Your task to perform on an android device: What is the news today? Image 0: 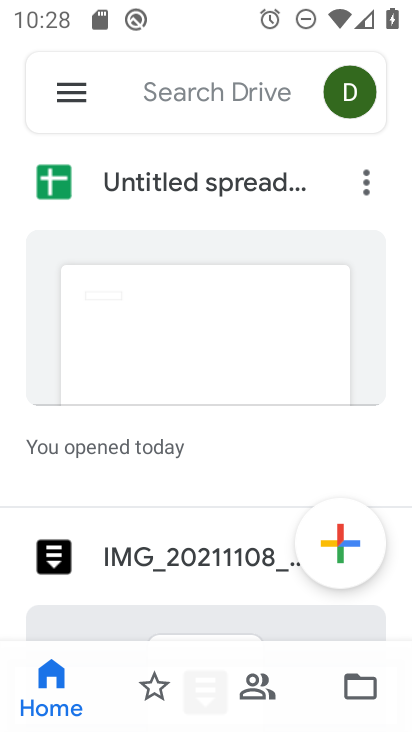
Step 0: press home button
Your task to perform on an android device: What is the news today? Image 1: 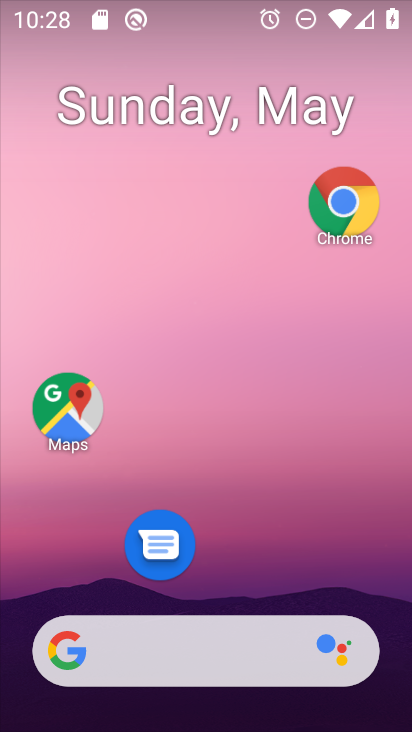
Step 1: click (234, 659)
Your task to perform on an android device: What is the news today? Image 2: 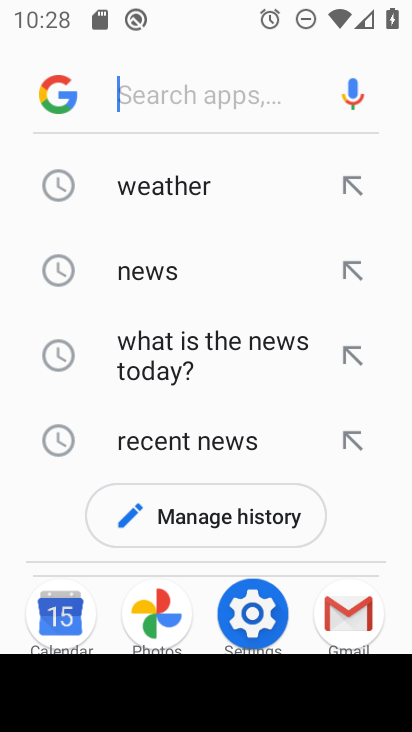
Step 2: type "what is the news today"
Your task to perform on an android device: What is the news today? Image 3: 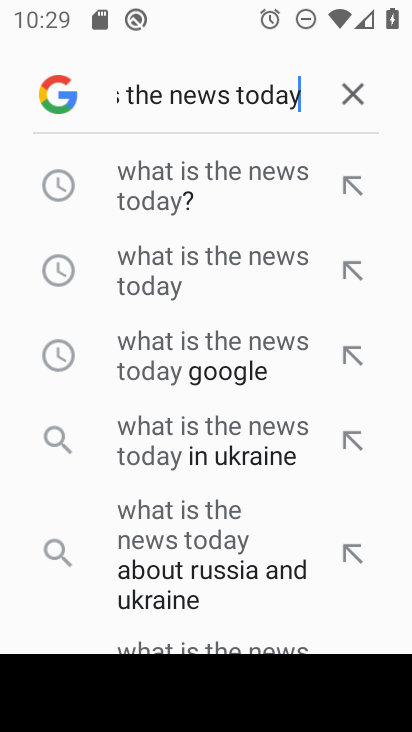
Step 3: click (197, 197)
Your task to perform on an android device: What is the news today? Image 4: 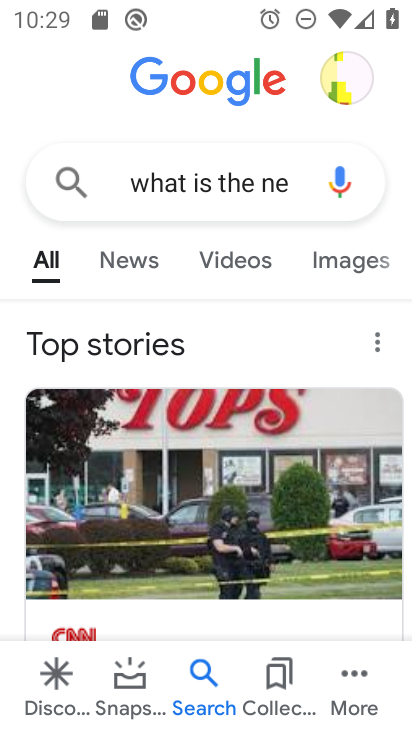
Step 4: click (128, 257)
Your task to perform on an android device: What is the news today? Image 5: 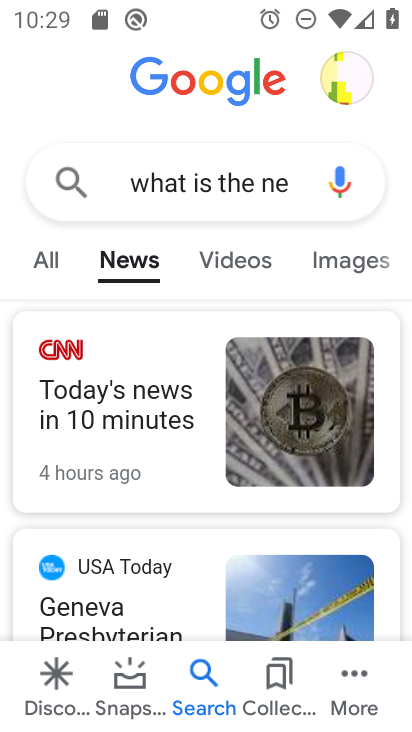
Step 5: task complete